Your task to perform on an android device: Add macbook pro 13 inch to the cart on costco.com, then select checkout. Image 0: 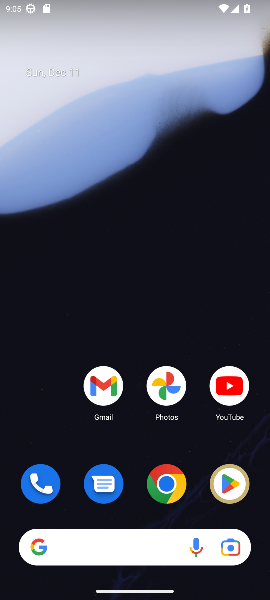
Step 0: click (170, 471)
Your task to perform on an android device: Add macbook pro 13 inch to the cart on costco.com, then select checkout. Image 1: 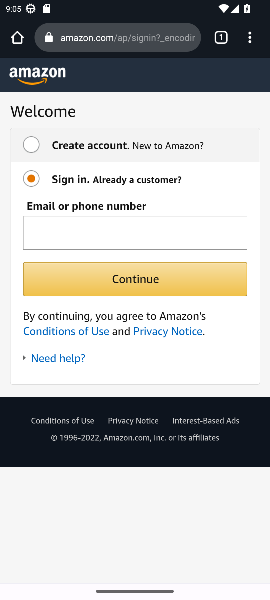
Step 1: click (111, 32)
Your task to perform on an android device: Add macbook pro 13 inch to the cart on costco.com, then select checkout. Image 2: 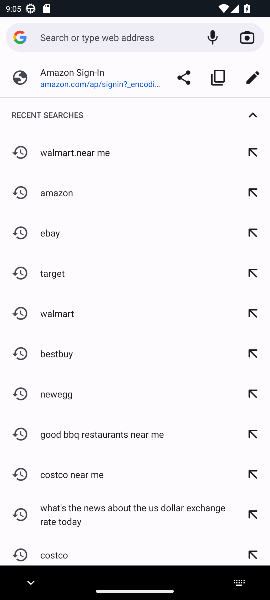
Step 2: click (63, 555)
Your task to perform on an android device: Add macbook pro 13 inch to the cart on costco.com, then select checkout. Image 3: 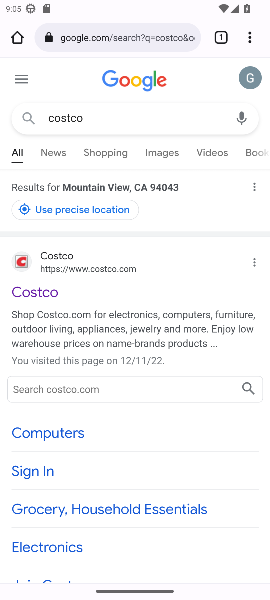
Step 3: click (33, 291)
Your task to perform on an android device: Add macbook pro 13 inch to the cart on costco.com, then select checkout. Image 4: 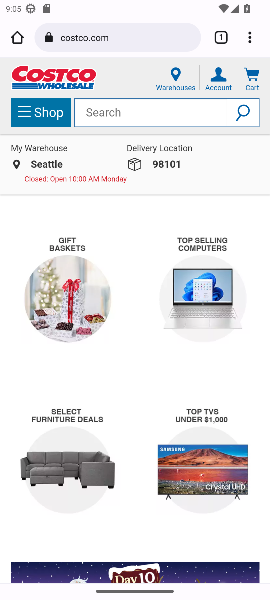
Step 4: click (109, 106)
Your task to perform on an android device: Add macbook pro 13 inch to the cart on costco.com, then select checkout. Image 5: 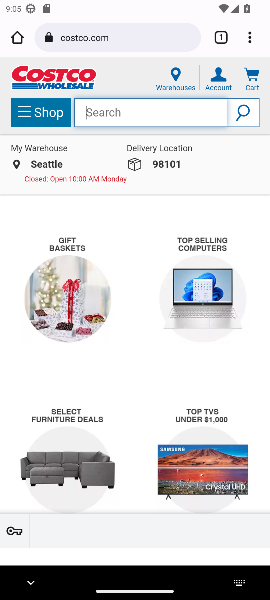
Step 5: type "macbook pro 13 inch "
Your task to perform on an android device: Add macbook pro 13 inch to the cart on costco.com, then select checkout. Image 6: 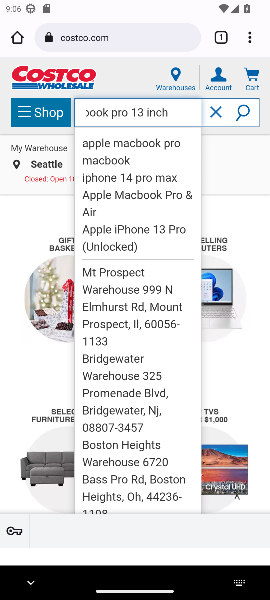
Step 6: click (244, 116)
Your task to perform on an android device: Add macbook pro 13 inch to the cart on costco.com, then select checkout. Image 7: 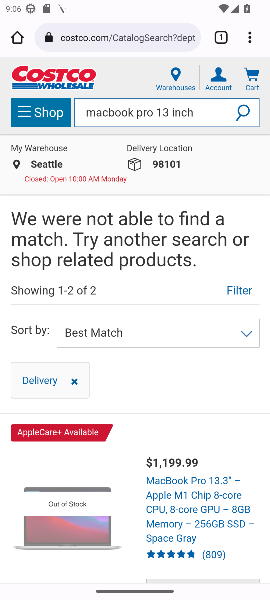
Step 7: task complete